Your task to perform on an android device: toggle pop-ups in chrome Image 0: 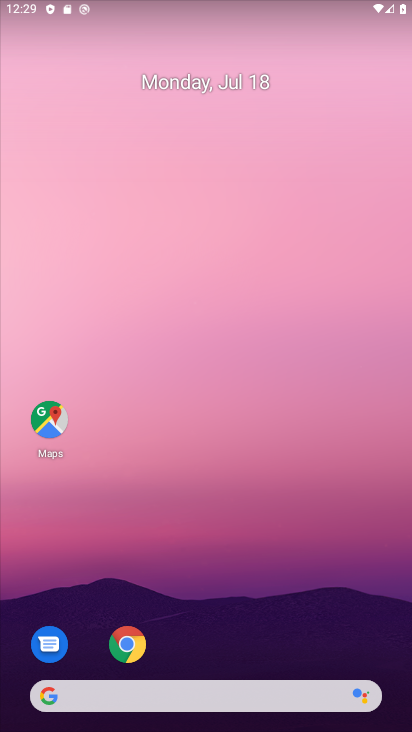
Step 0: click (131, 657)
Your task to perform on an android device: toggle pop-ups in chrome Image 1: 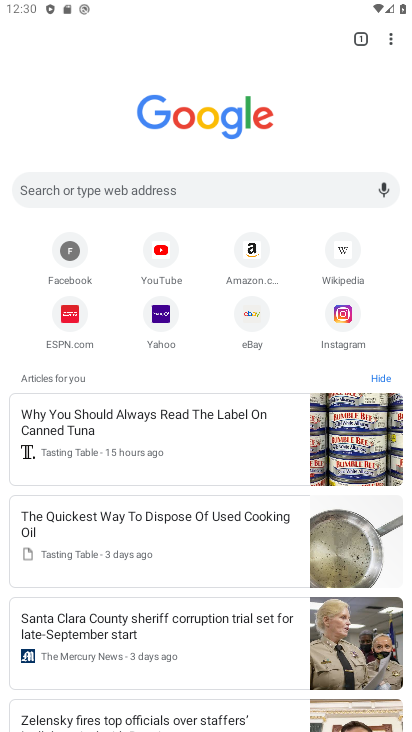
Step 1: drag from (385, 35) to (262, 326)
Your task to perform on an android device: toggle pop-ups in chrome Image 2: 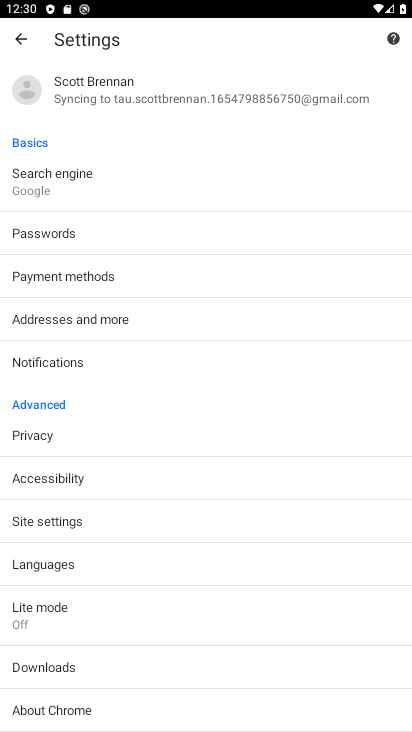
Step 2: drag from (46, 567) to (146, 539)
Your task to perform on an android device: toggle pop-ups in chrome Image 3: 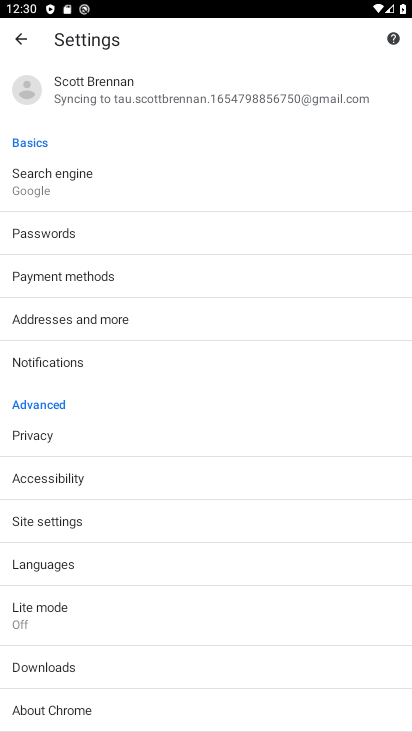
Step 3: click (144, 525)
Your task to perform on an android device: toggle pop-ups in chrome Image 4: 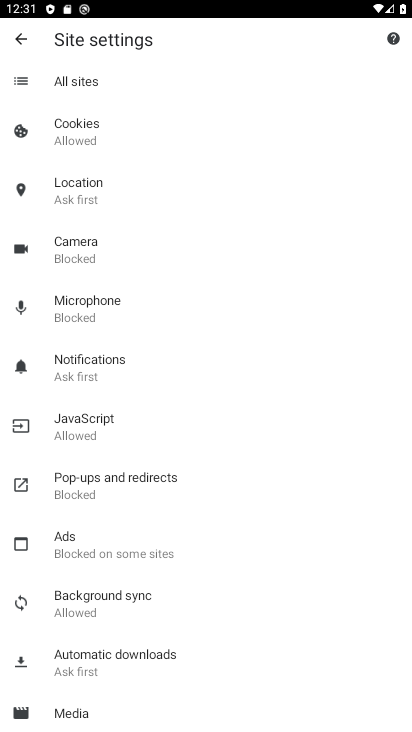
Step 4: click (116, 479)
Your task to perform on an android device: toggle pop-ups in chrome Image 5: 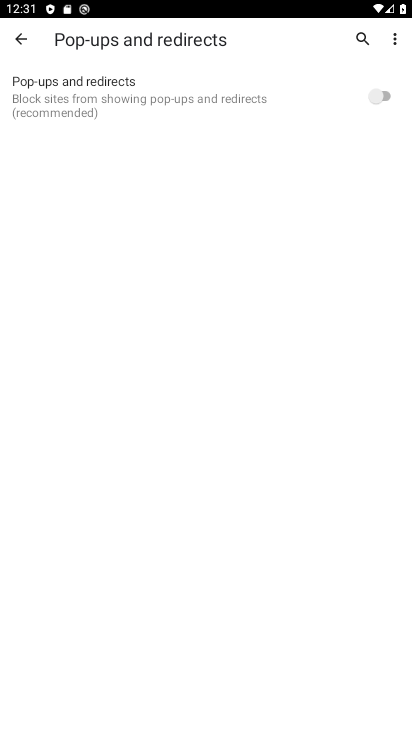
Step 5: click (192, 122)
Your task to perform on an android device: toggle pop-ups in chrome Image 6: 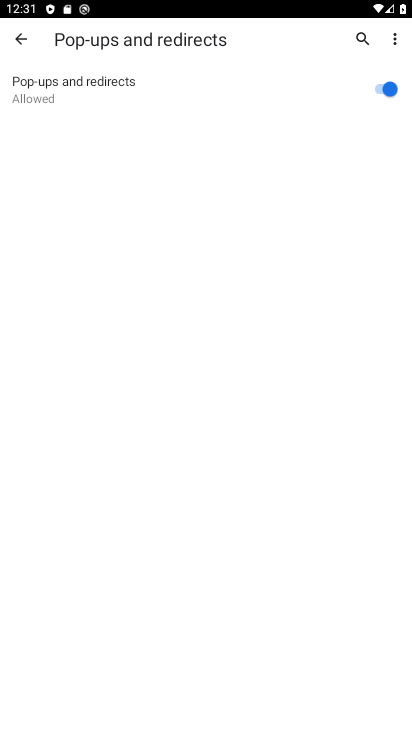
Step 6: task complete